Your task to perform on an android device: What's the weather? Image 0: 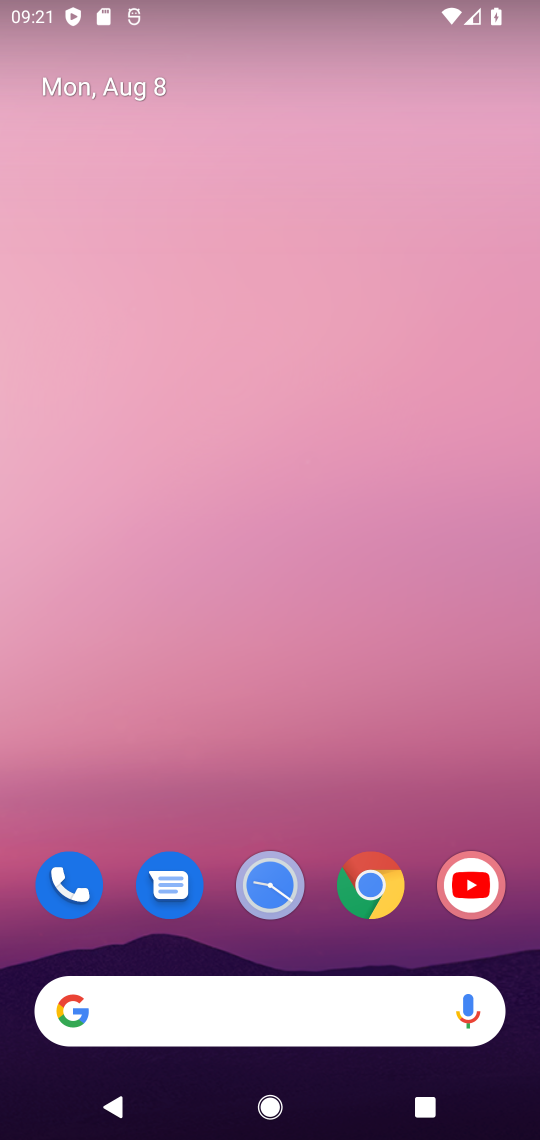
Step 0: press home button
Your task to perform on an android device: What's the weather? Image 1: 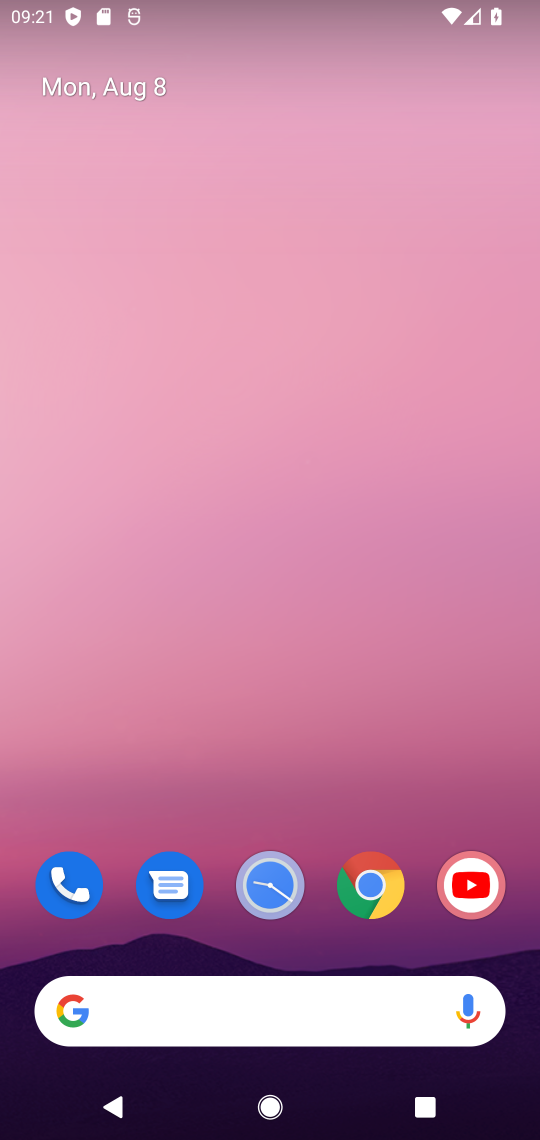
Step 1: click (390, 892)
Your task to perform on an android device: What's the weather? Image 2: 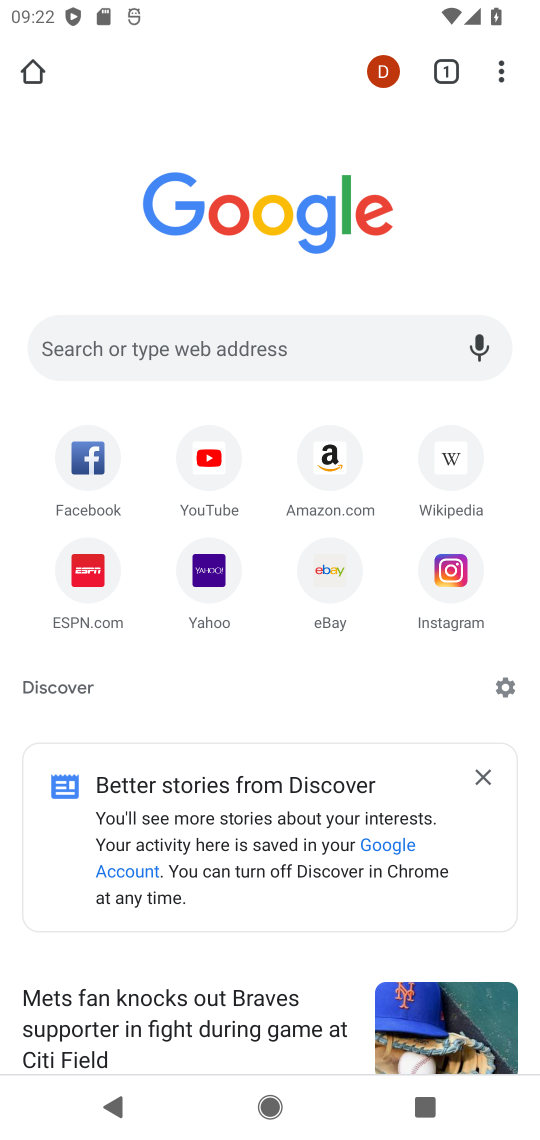
Step 2: click (168, 342)
Your task to perform on an android device: What's the weather? Image 3: 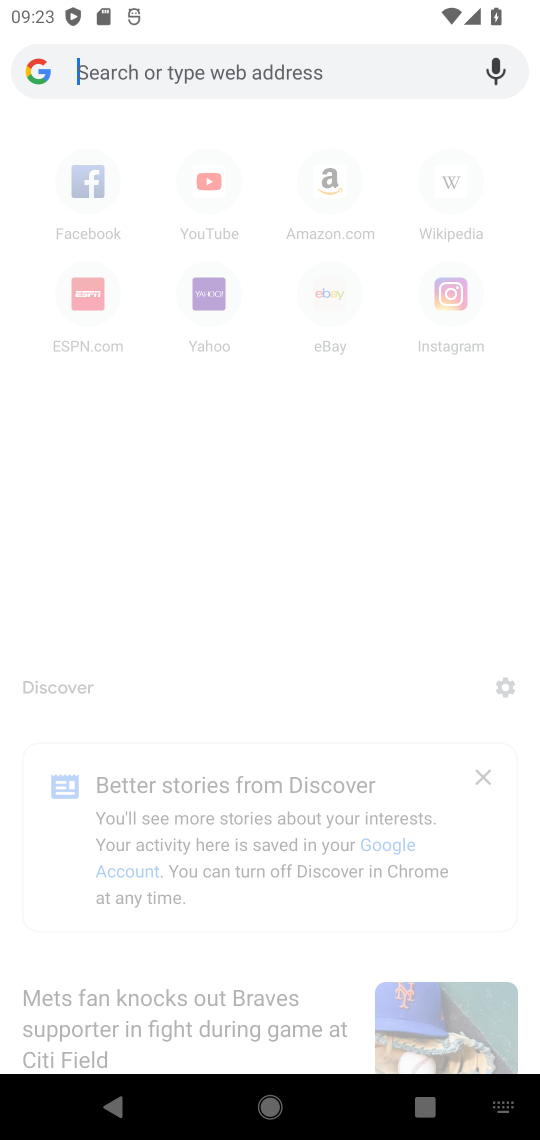
Step 3: type "What's the weather?"
Your task to perform on an android device: What's the weather? Image 4: 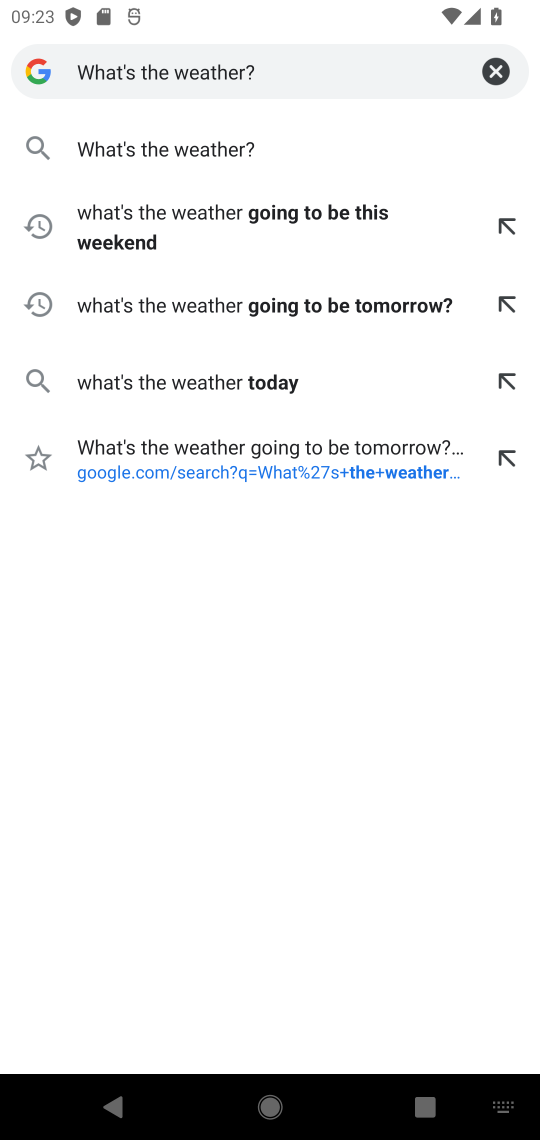
Step 4: click (38, 159)
Your task to perform on an android device: What's the weather? Image 5: 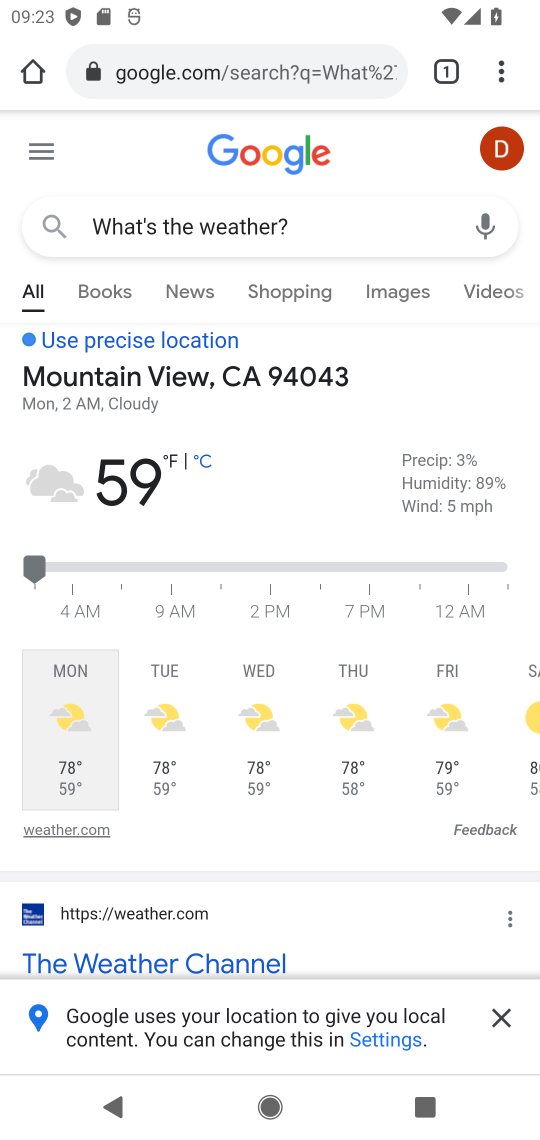
Step 5: task complete